Your task to perform on an android device: change the upload size in google photos Image 0: 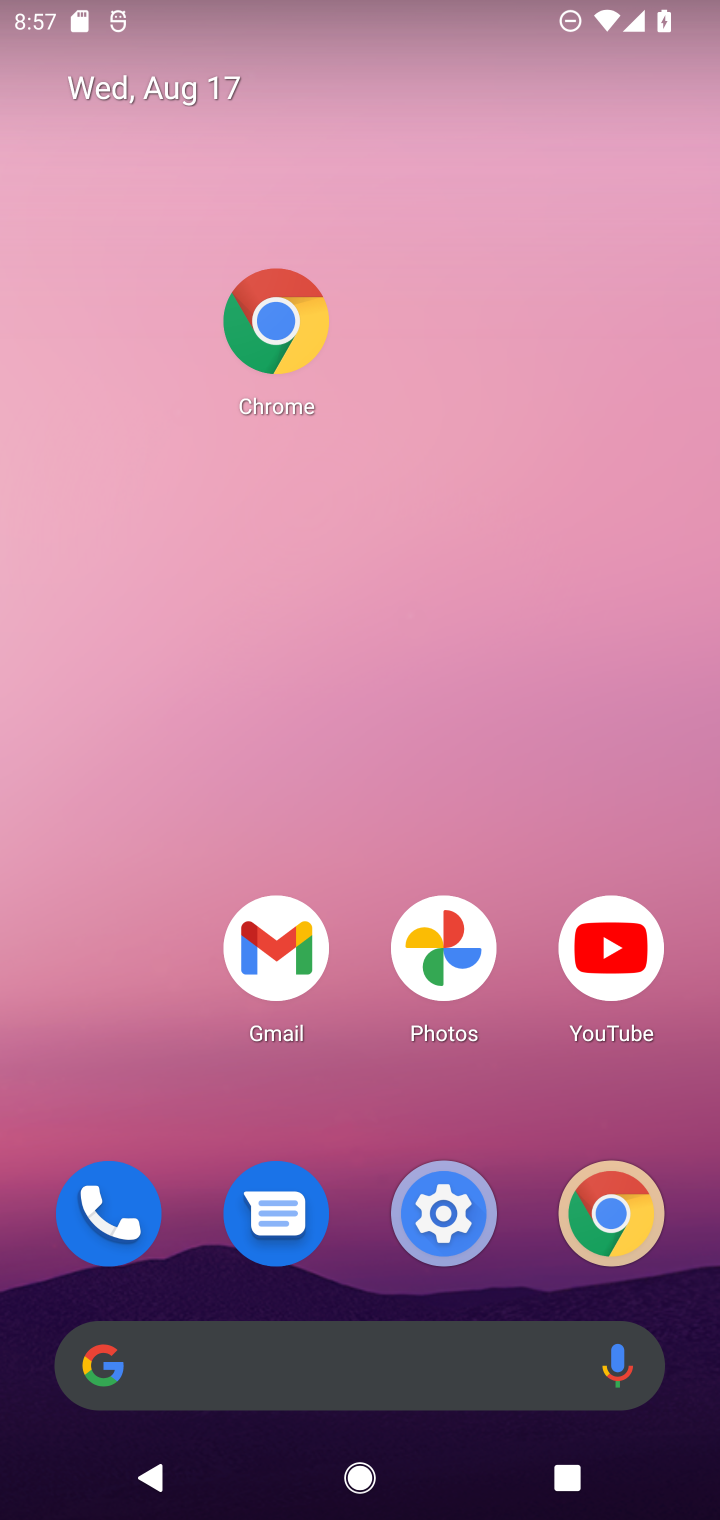
Step 0: click (475, 1002)
Your task to perform on an android device: change the upload size in google photos Image 1: 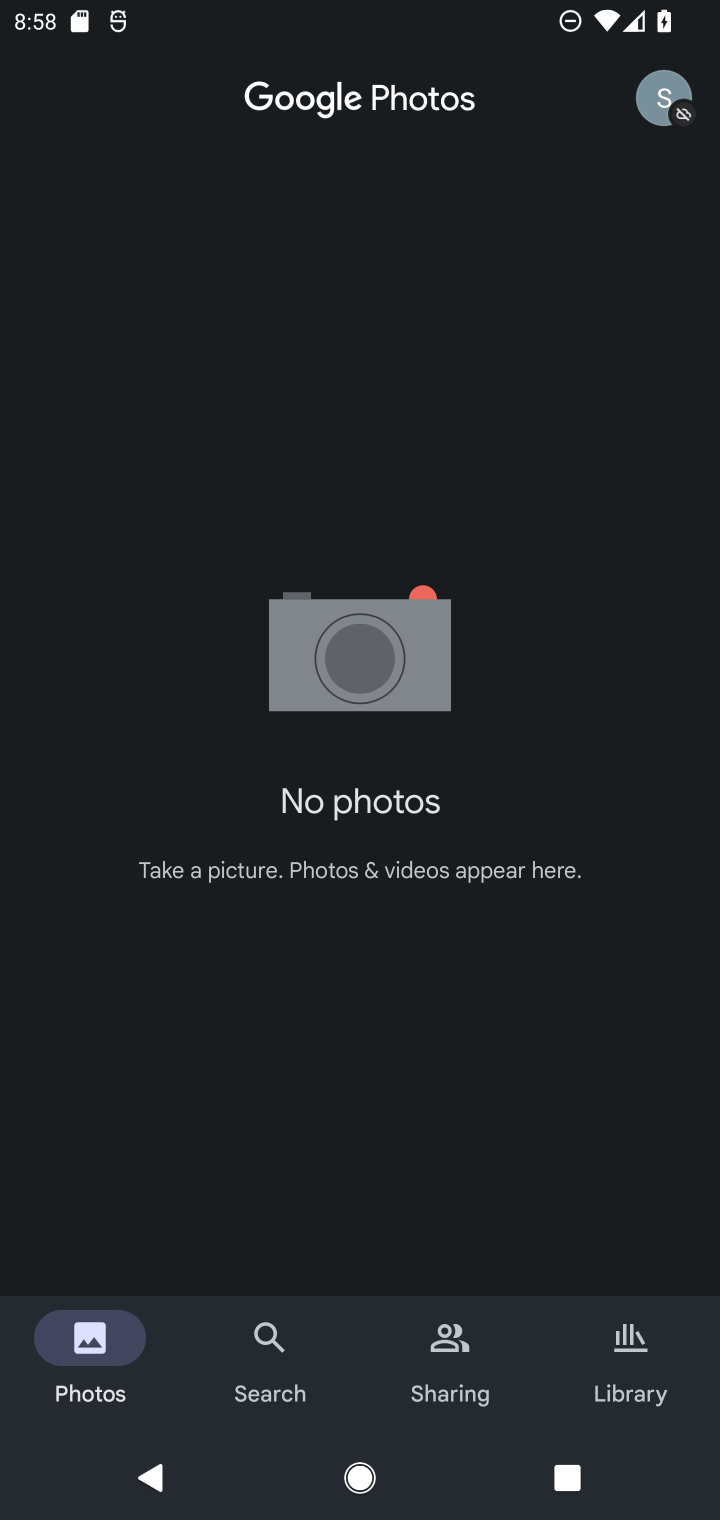
Step 1: task complete